Your task to perform on an android device: install app "Google Find My Device" Image 0: 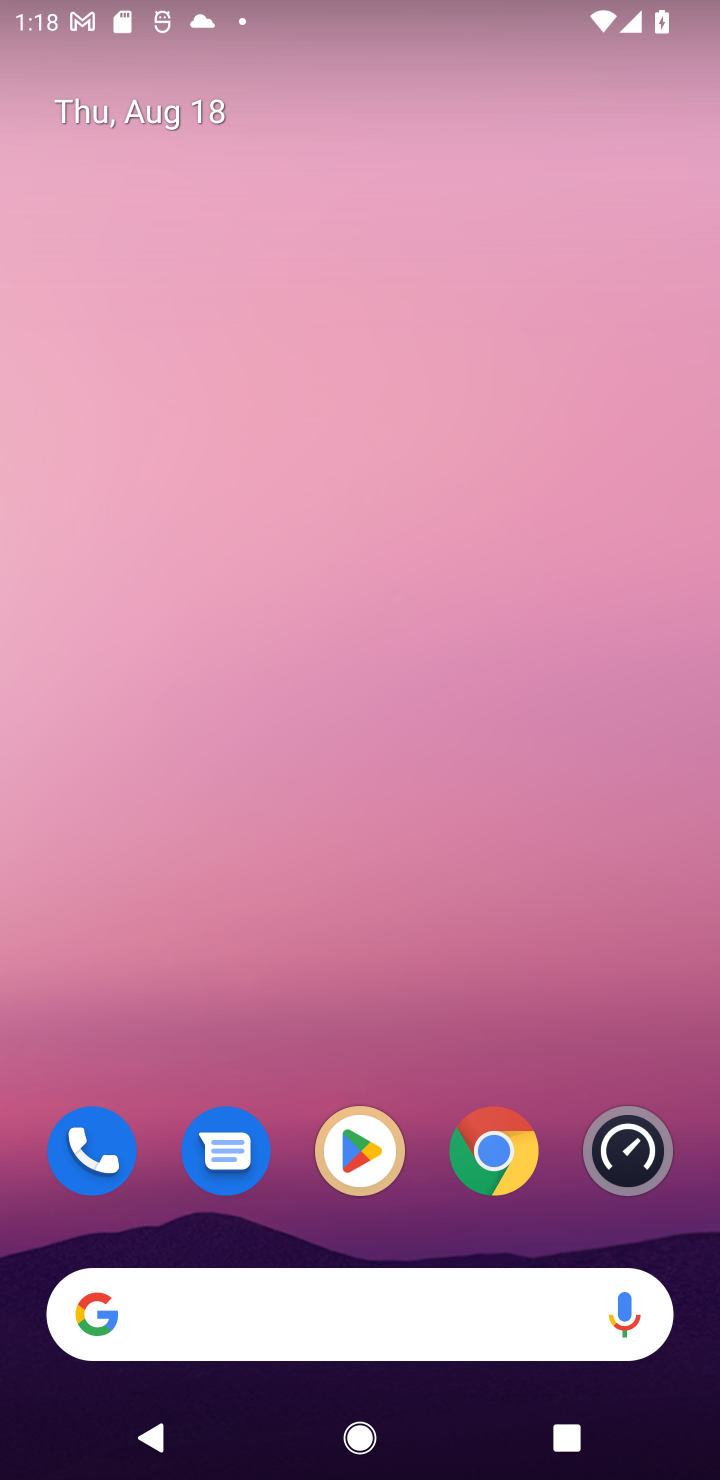
Step 0: click (372, 1161)
Your task to perform on an android device: install app "Google Find My Device" Image 1: 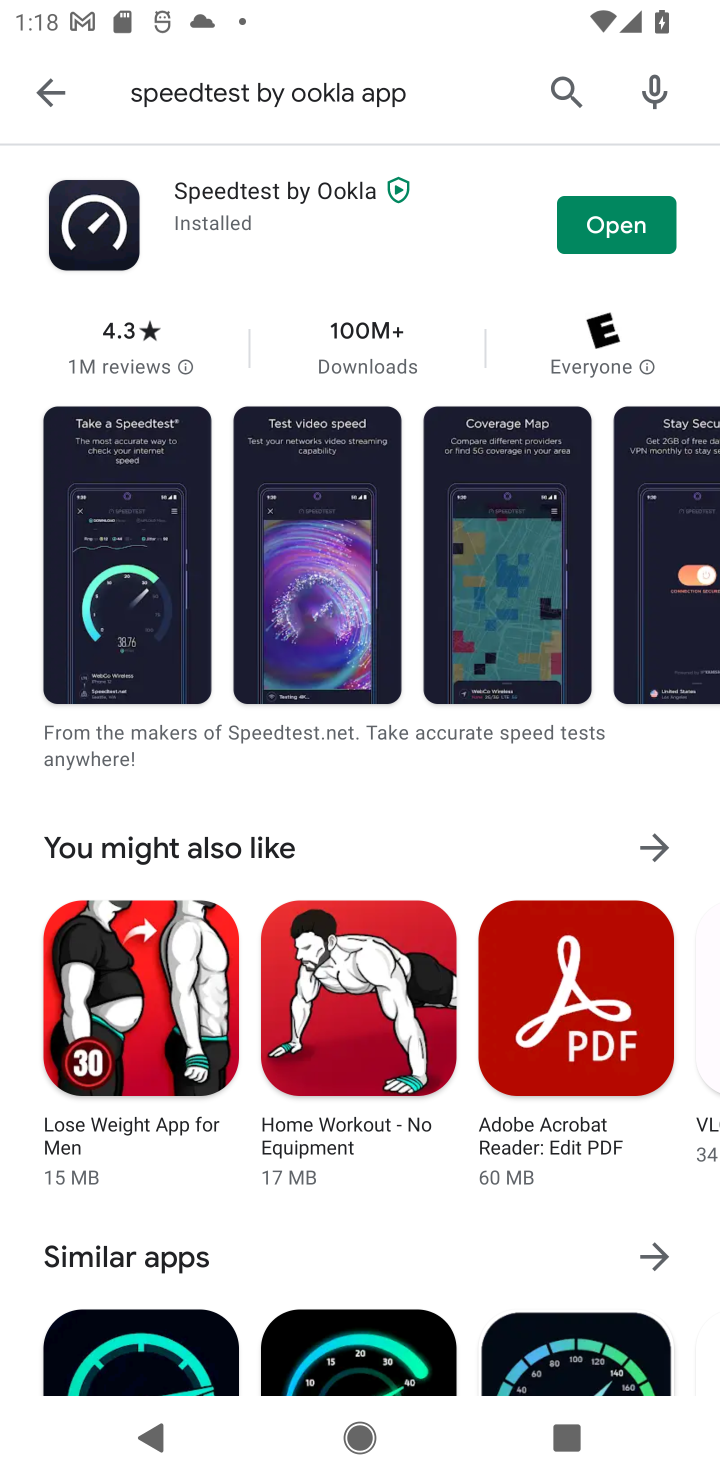
Step 1: press home button
Your task to perform on an android device: install app "Google Find My Device" Image 2: 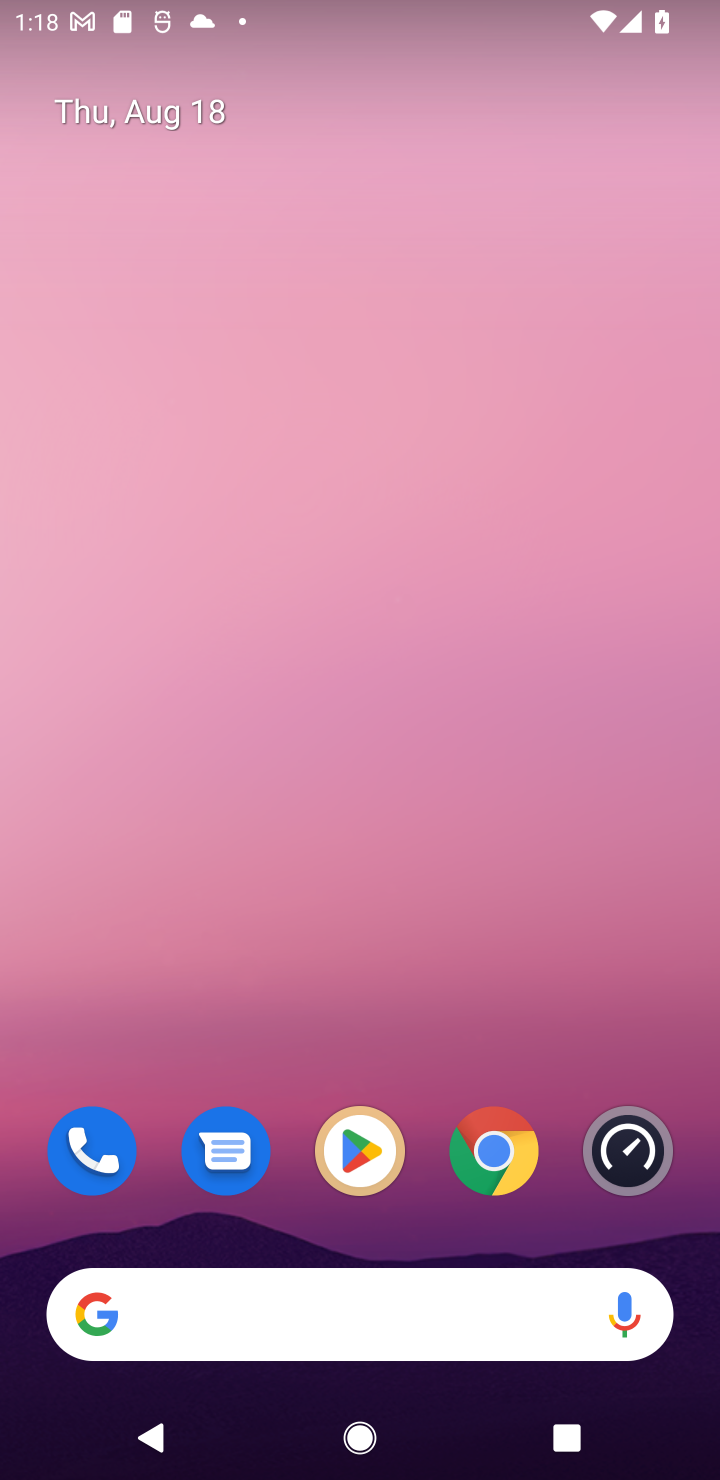
Step 2: click (339, 1159)
Your task to perform on an android device: install app "Google Find My Device" Image 3: 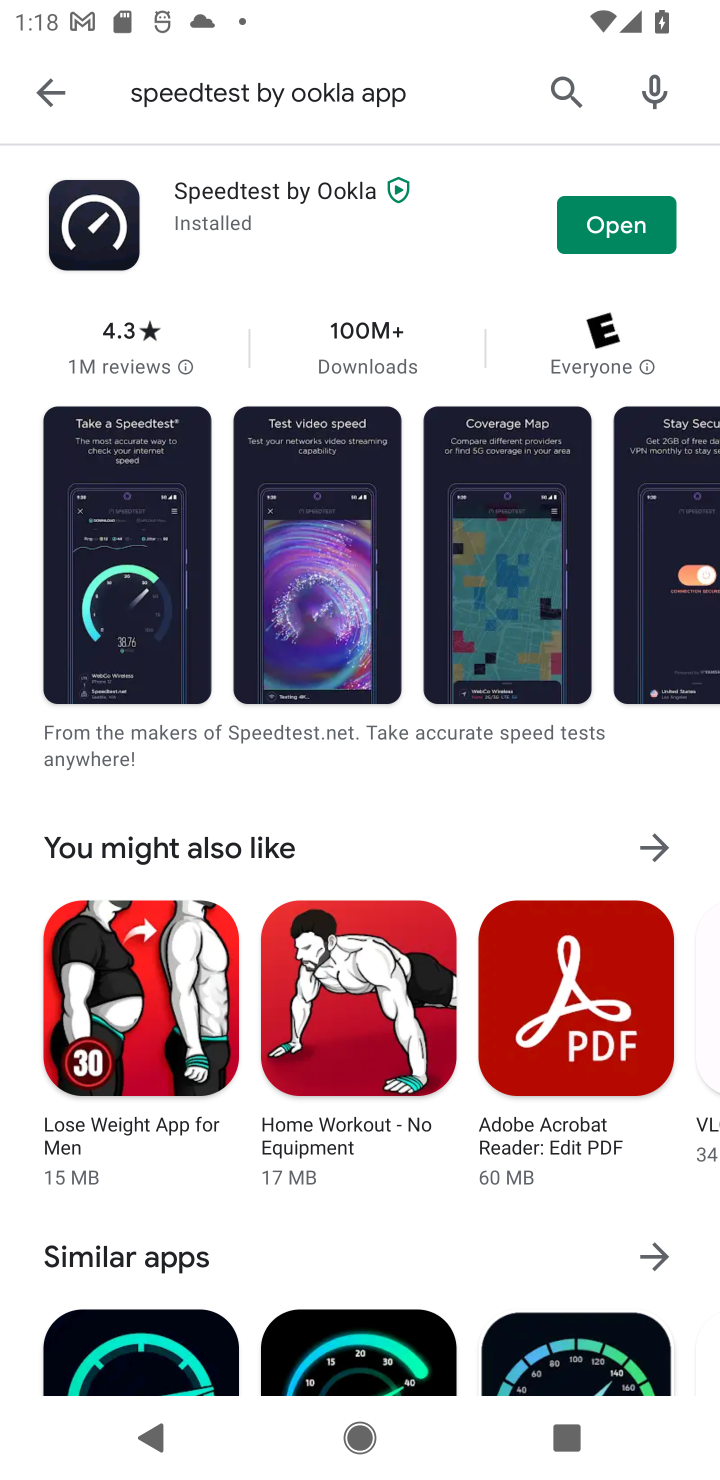
Step 3: click (50, 106)
Your task to perform on an android device: install app "Google Find My Device" Image 4: 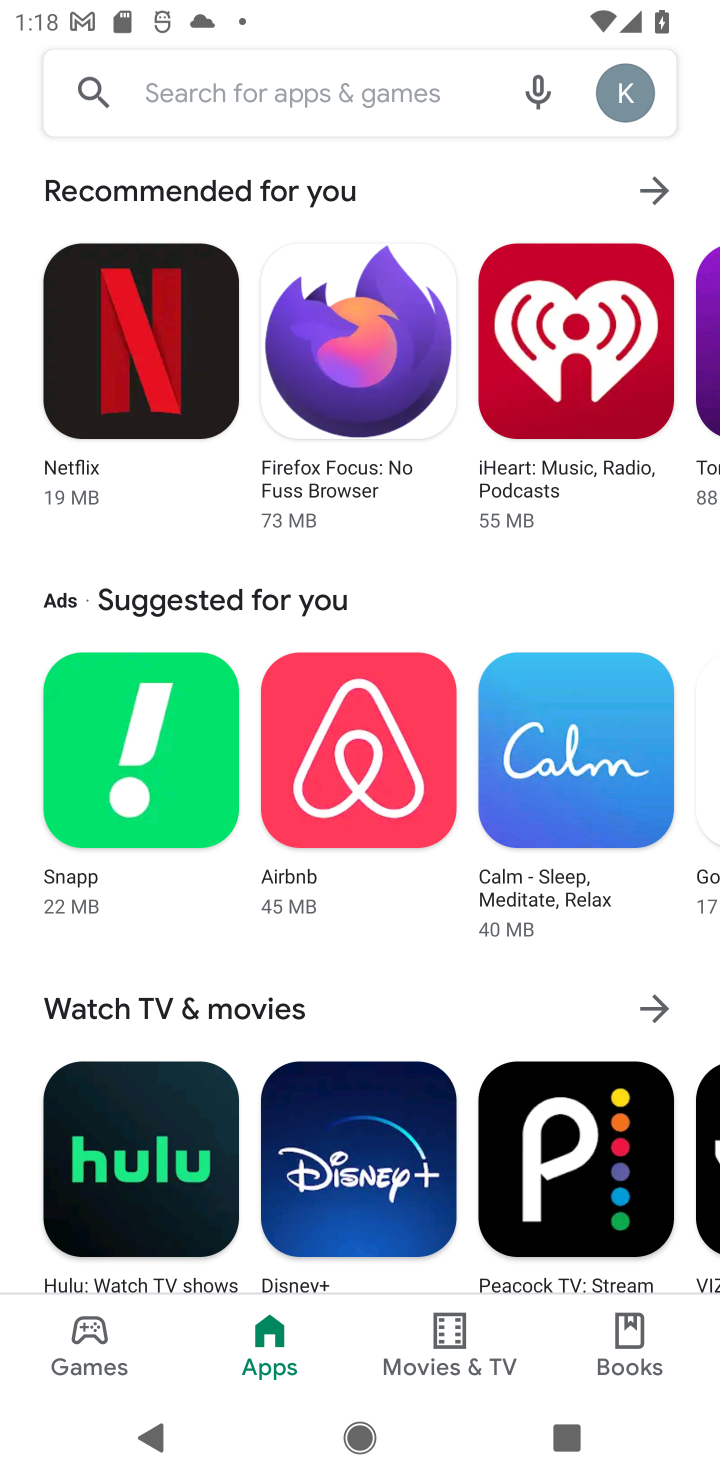
Step 4: click (292, 106)
Your task to perform on an android device: install app "Google Find My Device" Image 5: 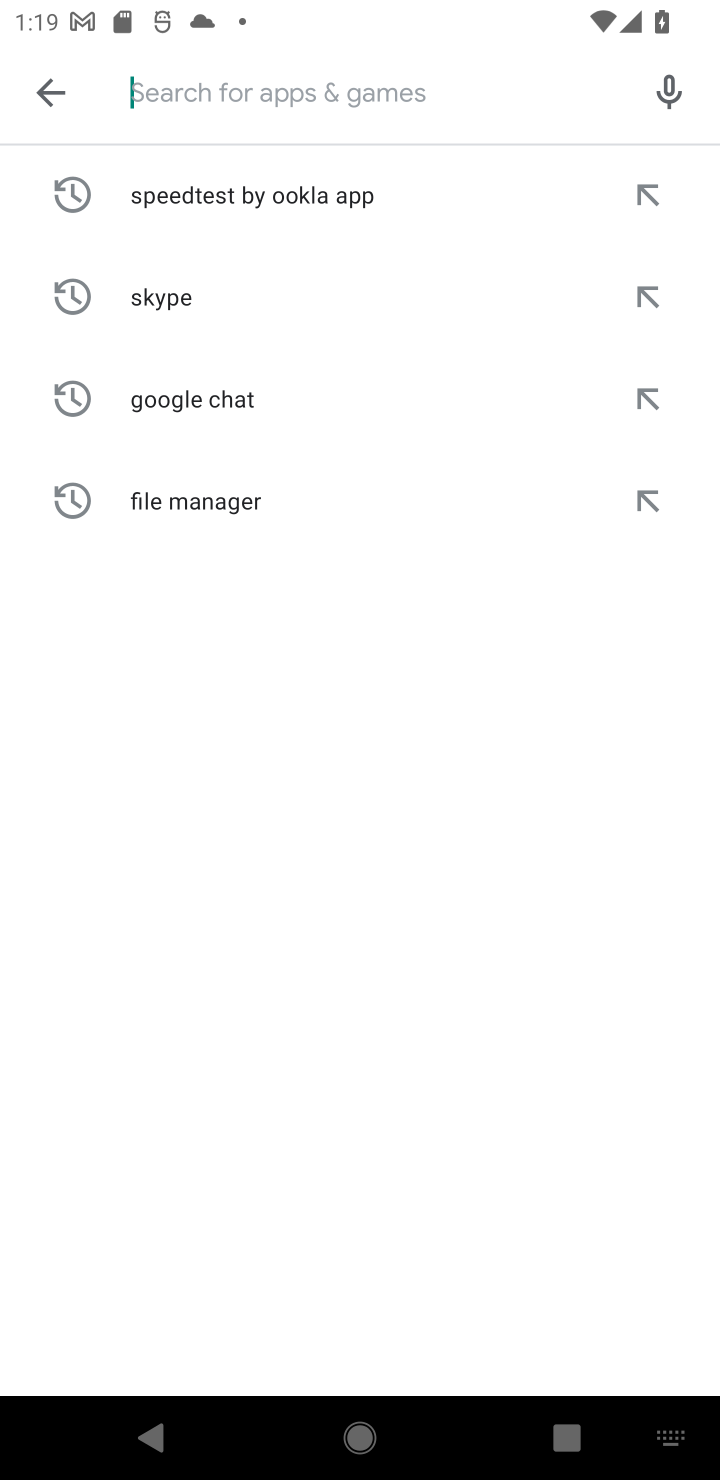
Step 5: type "Google Find My Device"
Your task to perform on an android device: install app "Google Find My Device" Image 6: 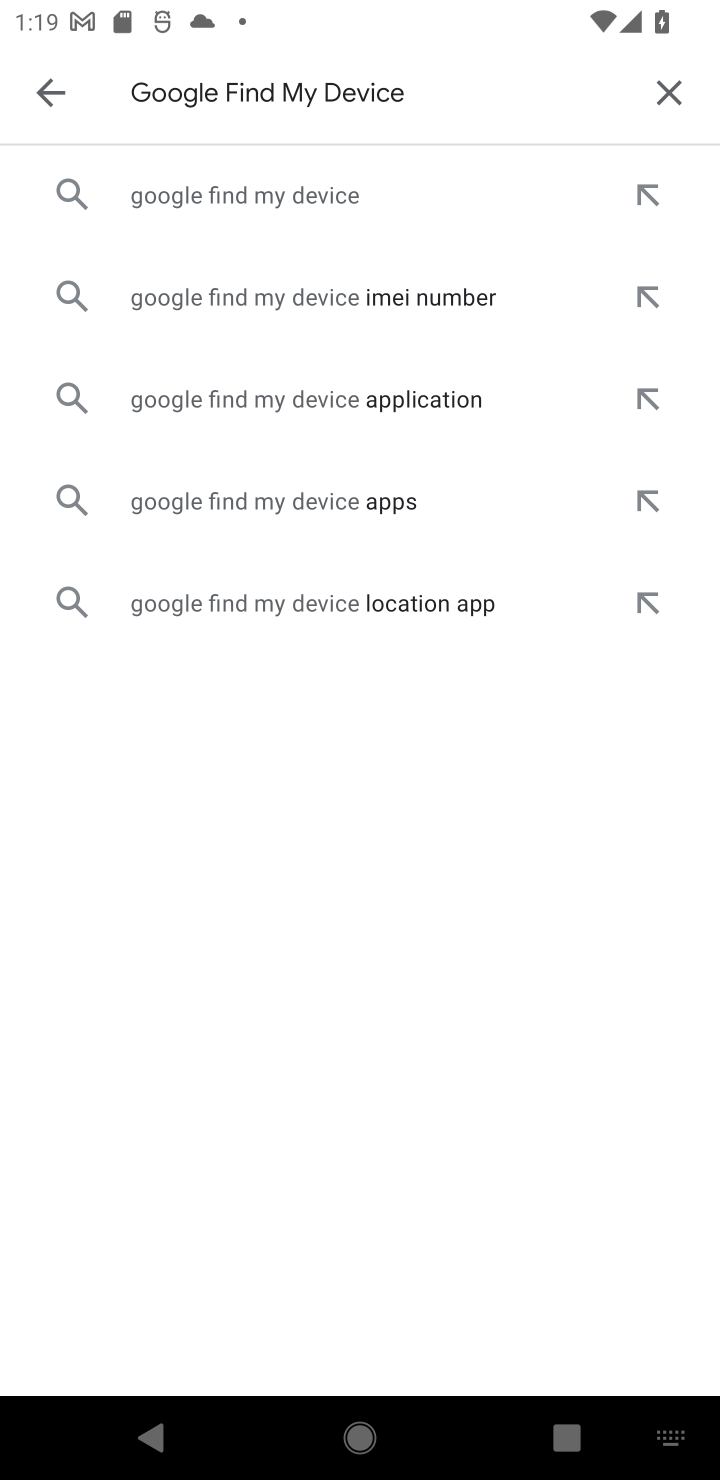
Step 6: click (248, 208)
Your task to perform on an android device: install app "Google Find My Device" Image 7: 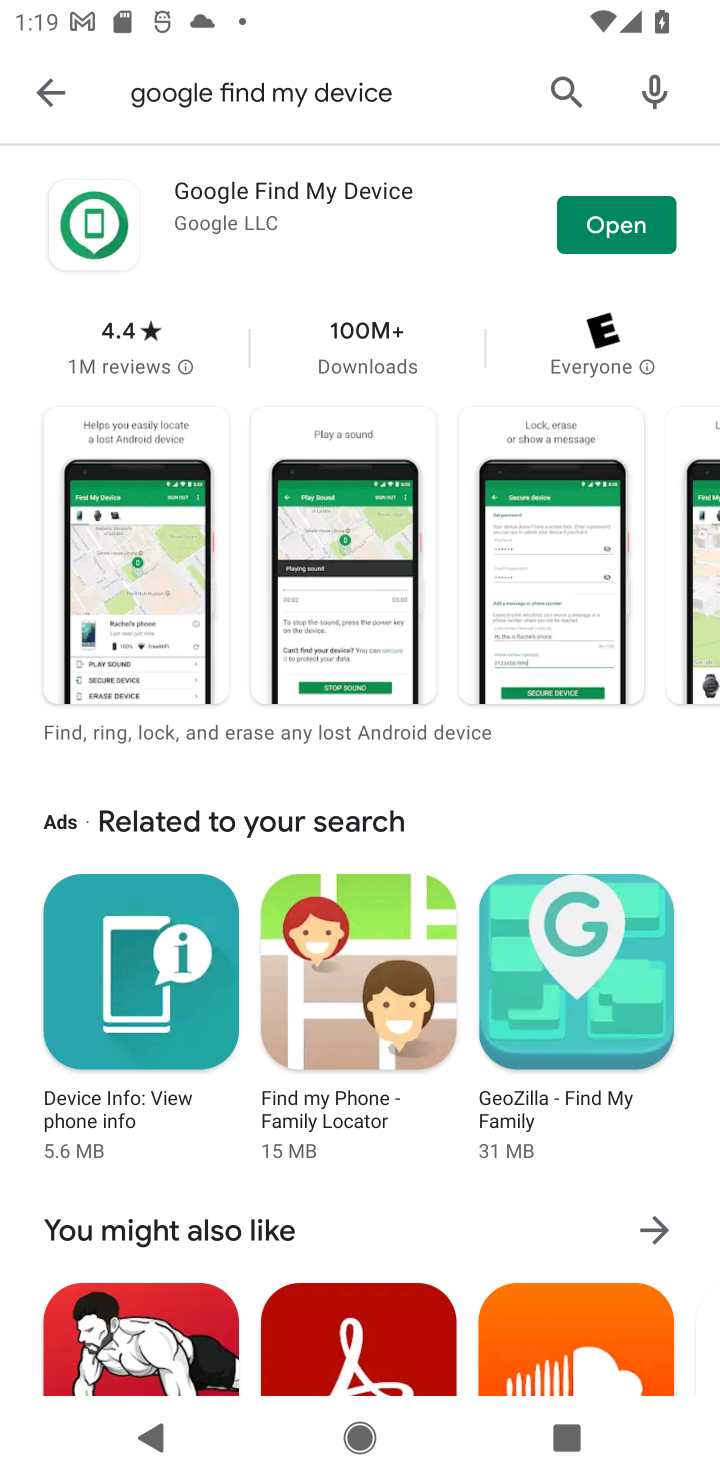
Step 7: click (587, 235)
Your task to perform on an android device: install app "Google Find My Device" Image 8: 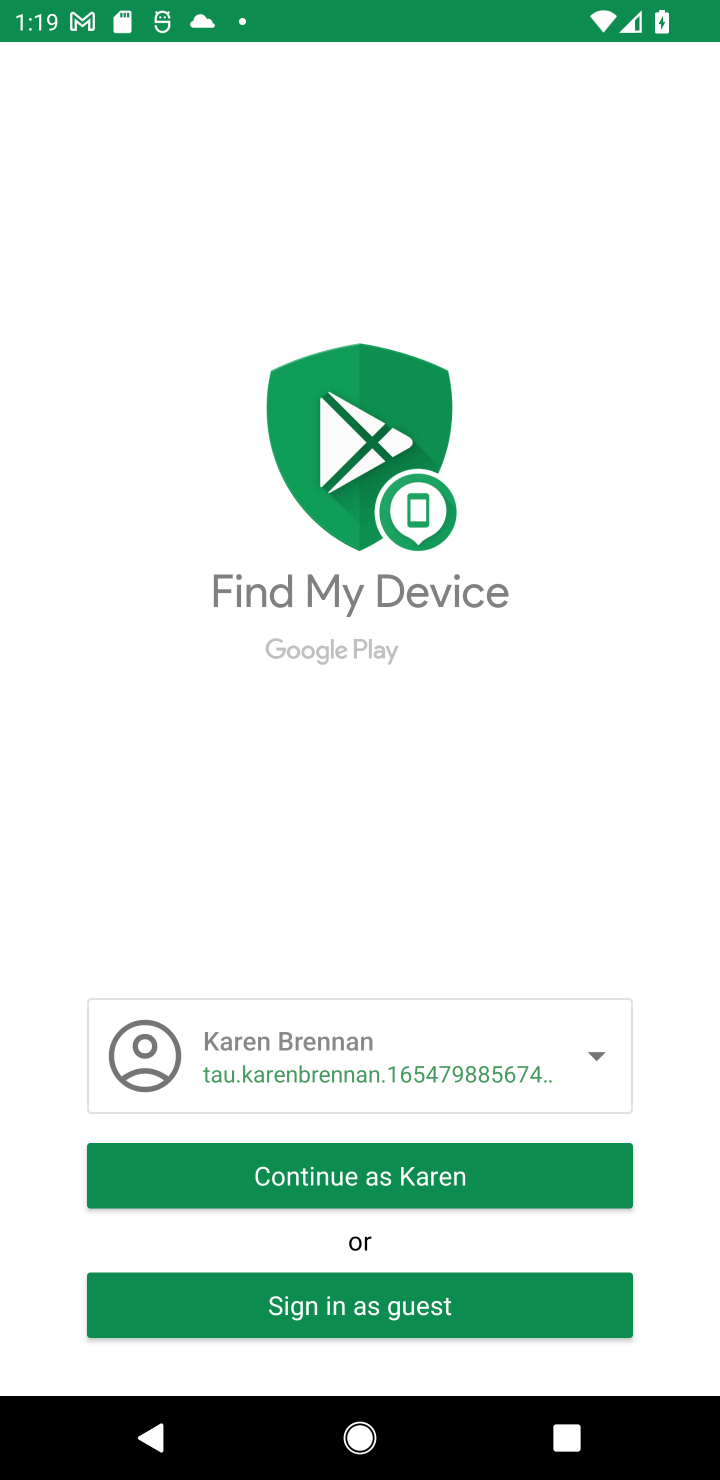
Step 8: task complete